Your task to perform on an android device: Search for Italian restaurants on Maps Image 0: 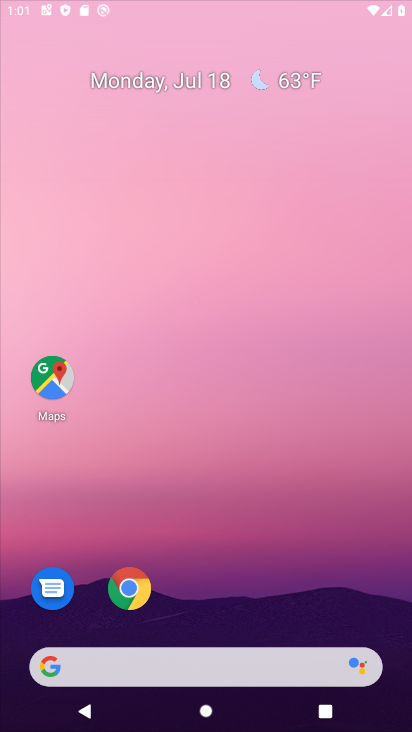
Step 0: click (44, 371)
Your task to perform on an android device: Search for Italian restaurants on Maps Image 1: 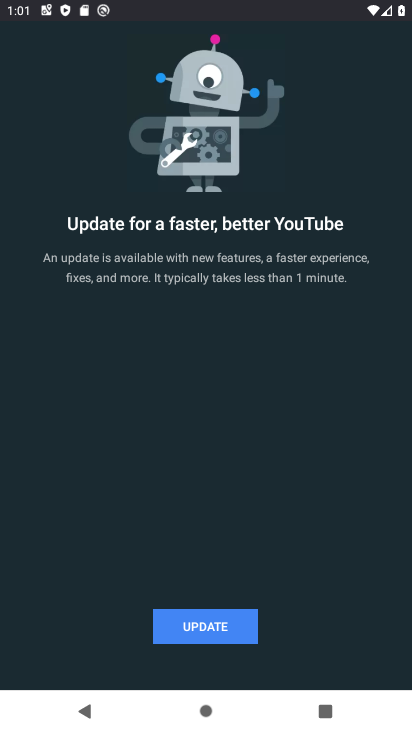
Step 1: press home button
Your task to perform on an android device: Search for Italian restaurants on Maps Image 2: 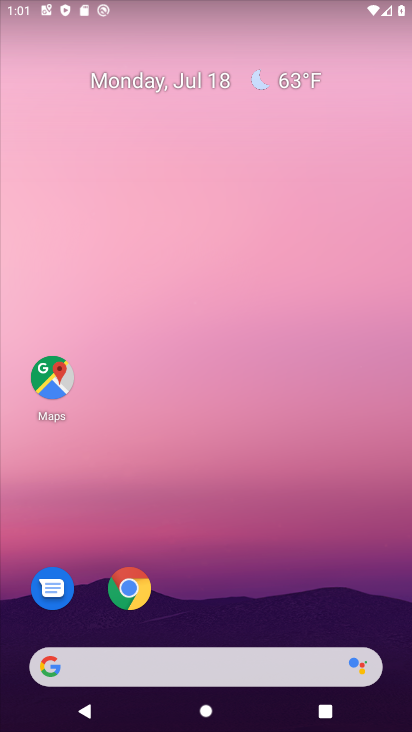
Step 2: click (50, 365)
Your task to perform on an android device: Search for Italian restaurants on Maps Image 3: 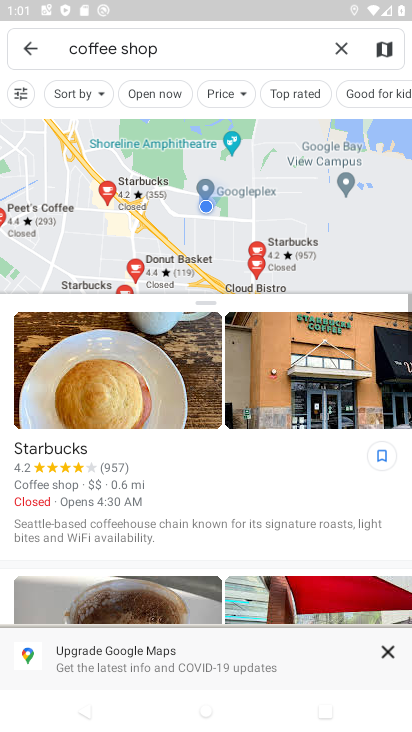
Step 3: click (337, 35)
Your task to perform on an android device: Search for Italian restaurants on Maps Image 4: 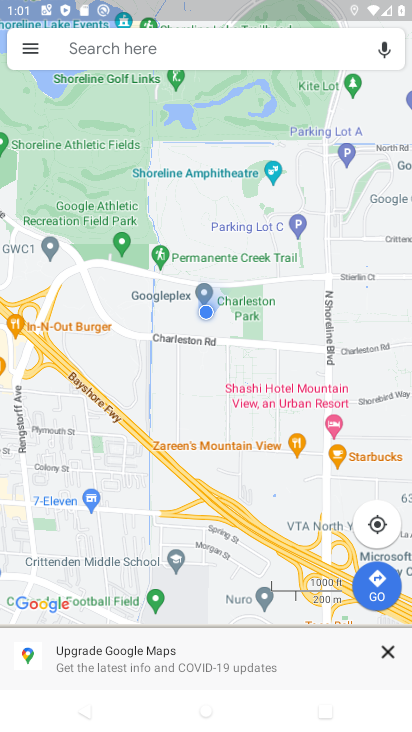
Step 4: click (129, 36)
Your task to perform on an android device: Search for Italian restaurants on Maps Image 5: 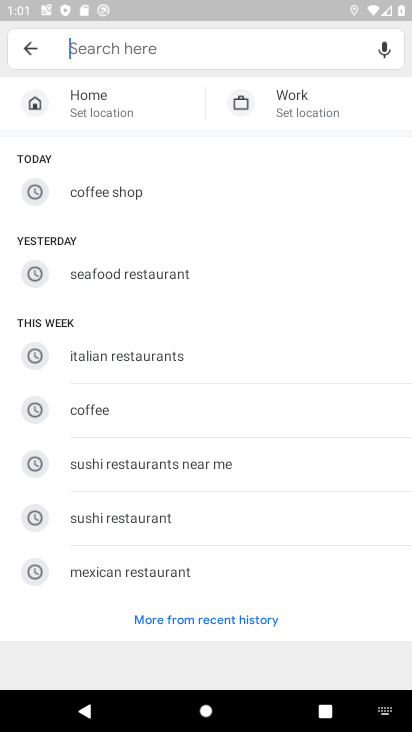
Step 5: click (99, 354)
Your task to perform on an android device: Search for Italian restaurants on Maps Image 6: 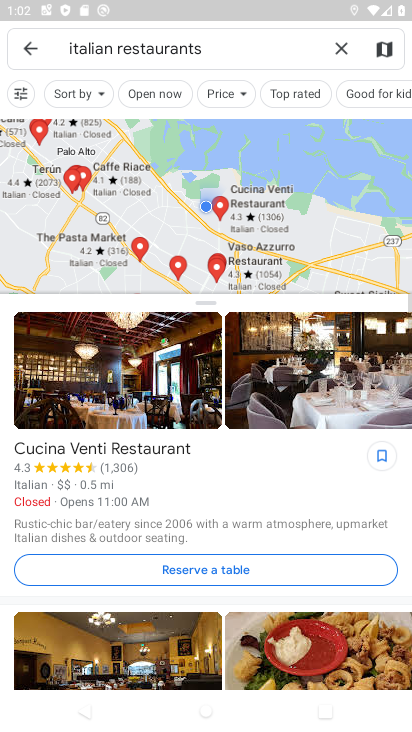
Step 6: task complete